Your task to perform on an android device: Open Yahoo.com Image 0: 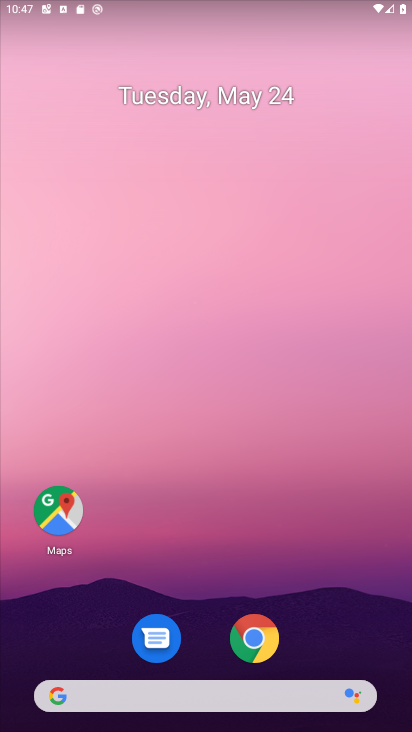
Step 0: click (220, 698)
Your task to perform on an android device: Open Yahoo.com Image 1: 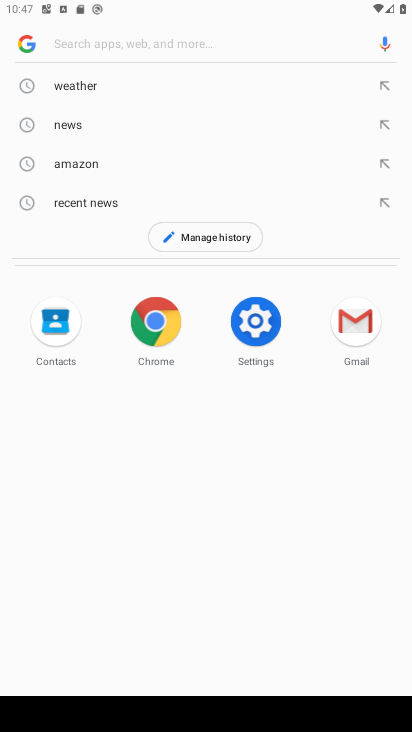
Step 1: type "yahoo.com"
Your task to perform on an android device: Open Yahoo.com Image 2: 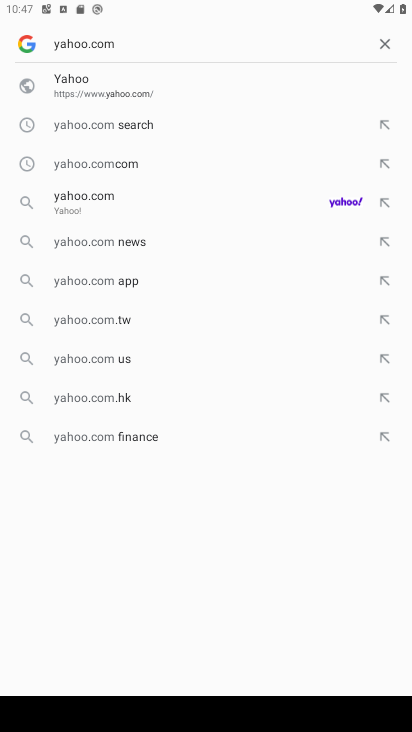
Step 2: click (82, 83)
Your task to perform on an android device: Open Yahoo.com Image 3: 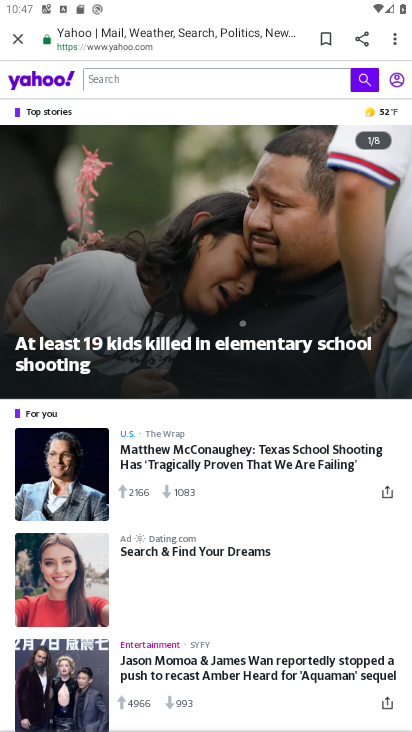
Step 3: task complete